Your task to perform on an android device: Open Yahoo.com Image 0: 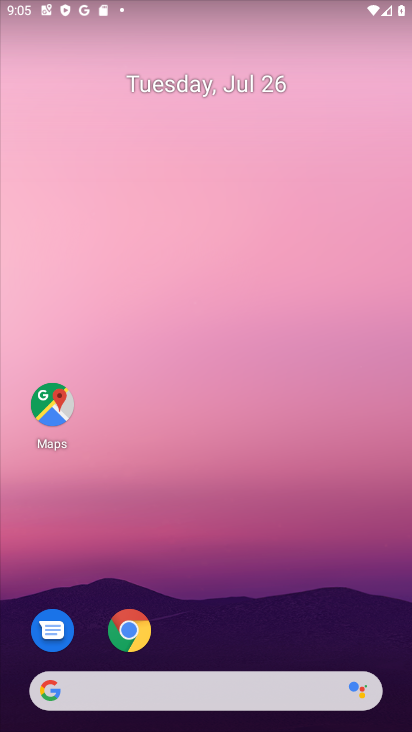
Step 0: click (128, 639)
Your task to perform on an android device: Open Yahoo.com Image 1: 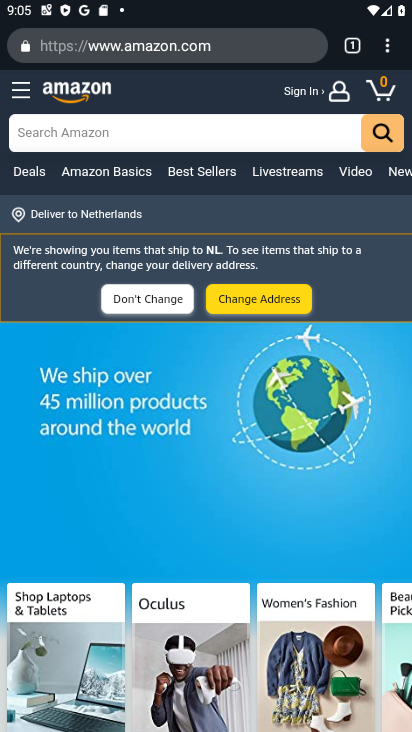
Step 1: click (354, 52)
Your task to perform on an android device: Open Yahoo.com Image 2: 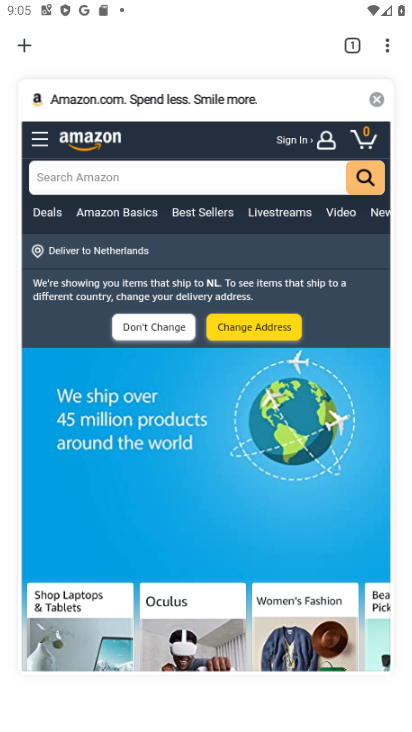
Step 2: click (34, 49)
Your task to perform on an android device: Open Yahoo.com Image 3: 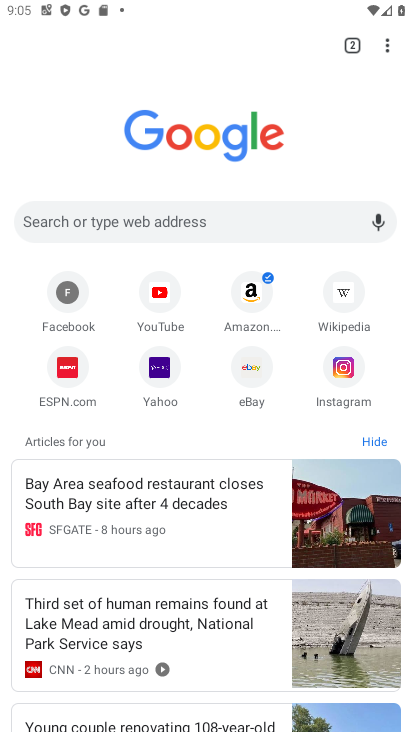
Step 3: click (166, 388)
Your task to perform on an android device: Open Yahoo.com Image 4: 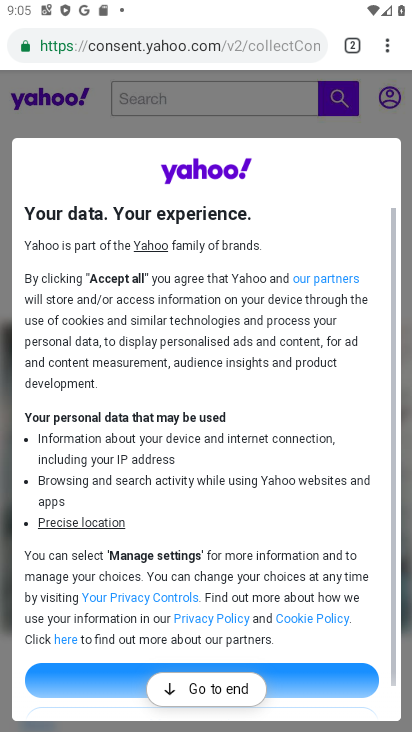
Step 4: task complete